Your task to perform on an android device: View the shopping cart on ebay. Add "macbook air" to the cart on ebay Image 0: 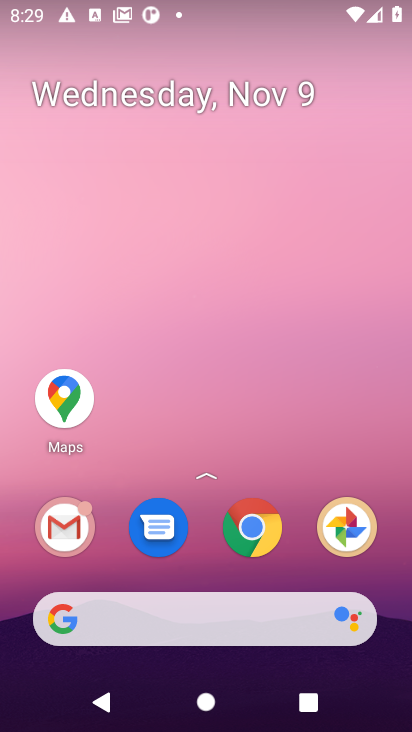
Step 0: click (260, 523)
Your task to perform on an android device: View the shopping cart on ebay. Add "macbook air" to the cart on ebay Image 1: 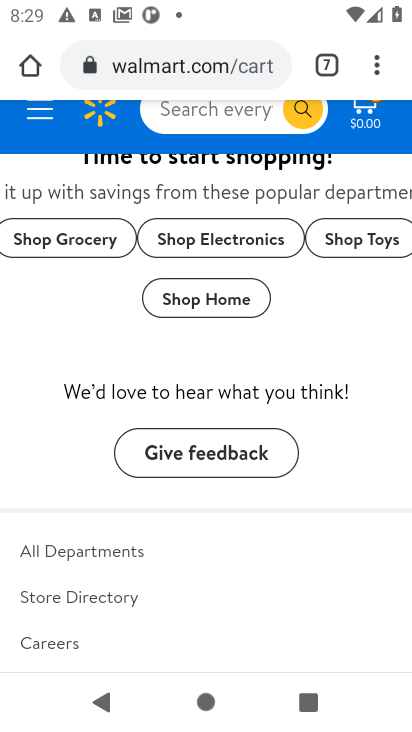
Step 1: click (200, 66)
Your task to perform on an android device: View the shopping cart on ebay. Add "macbook air" to the cart on ebay Image 2: 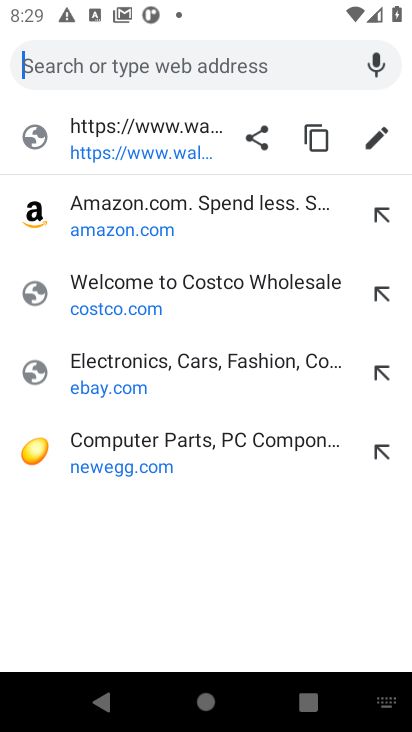
Step 2: click (118, 381)
Your task to perform on an android device: View the shopping cart on ebay. Add "macbook air" to the cart on ebay Image 3: 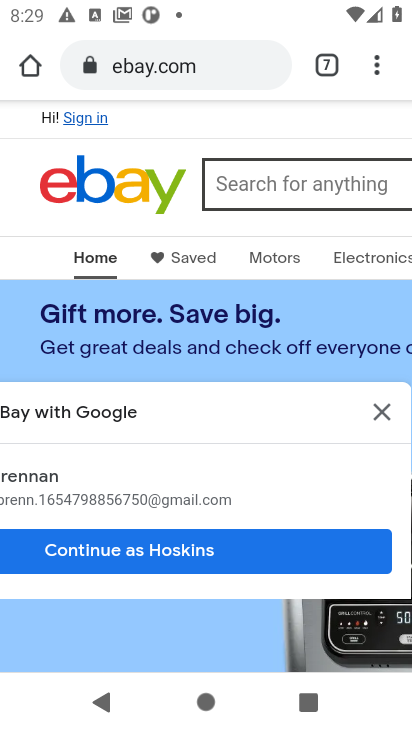
Step 3: drag from (190, 205) to (7, 202)
Your task to perform on an android device: View the shopping cart on ebay. Add "macbook air" to the cart on ebay Image 4: 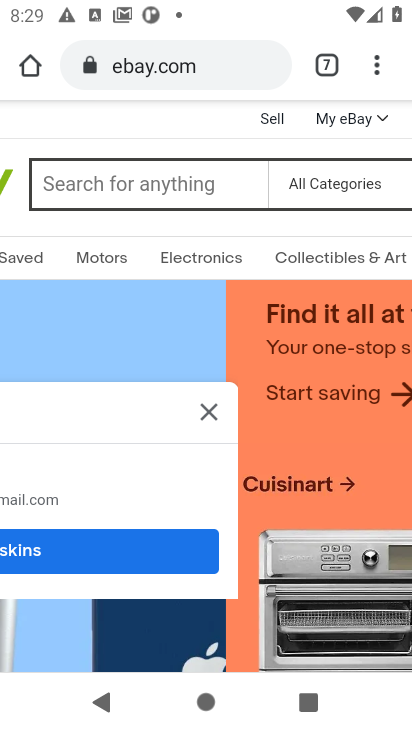
Step 4: drag from (360, 150) to (6, 140)
Your task to perform on an android device: View the shopping cart on ebay. Add "macbook air" to the cart on ebay Image 5: 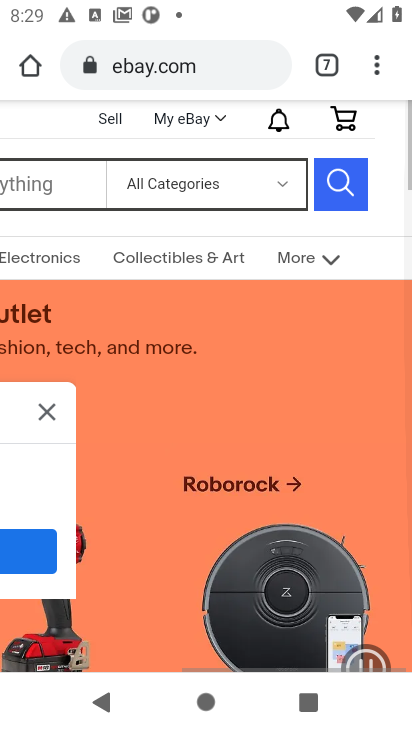
Step 5: click (336, 119)
Your task to perform on an android device: View the shopping cart on ebay. Add "macbook air" to the cart on ebay Image 6: 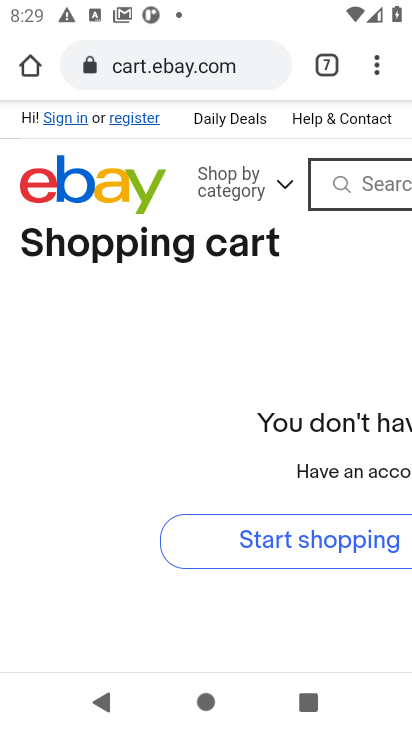
Step 6: click (377, 187)
Your task to perform on an android device: View the shopping cart on ebay. Add "macbook air" to the cart on ebay Image 7: 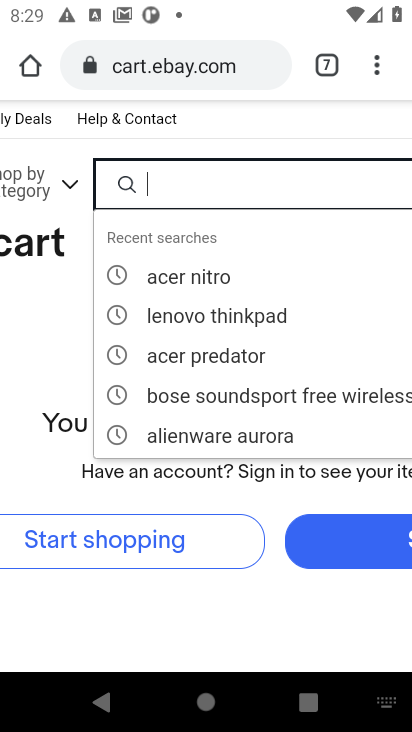
Step 7: type "macbook air"
Your task to perform on an android device: View the shopping cart on ebay. Add "macbook air" to the cart on ebay Image 8: 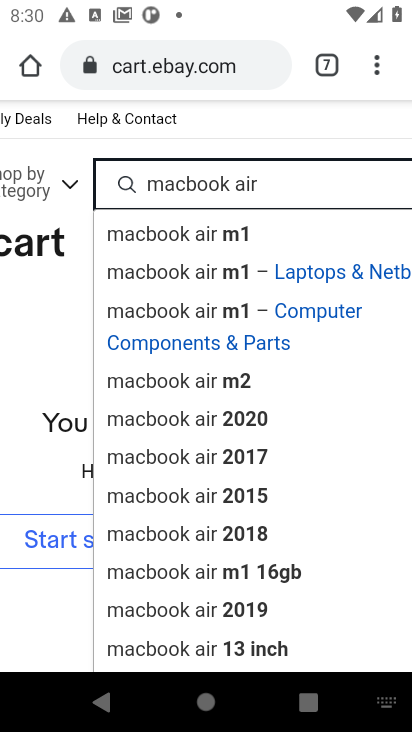
Step 8: drag from (204, 471) to (213, 392)
Your task to perform on an android device: View the shopping cart on ebay. Add "macbook air" to the cart on ebay Image 9: 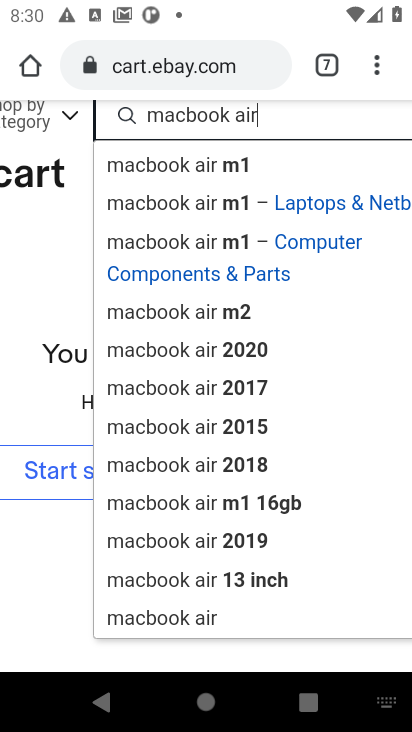
Step 9: click (164, 618)
Your task to perform on an android device: View the shopping cart on ebay. Add "macbook air" to the cart on ebay Image 10: 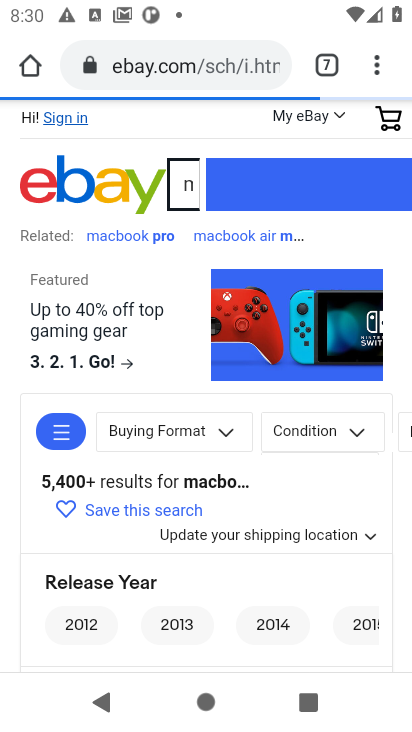
Step 10: drag from (234, 562) to (222, 274)
Your task to perform on an android device: View the shopping cart on ebay. Add "macbook air" to the cart on ebay Image 11: 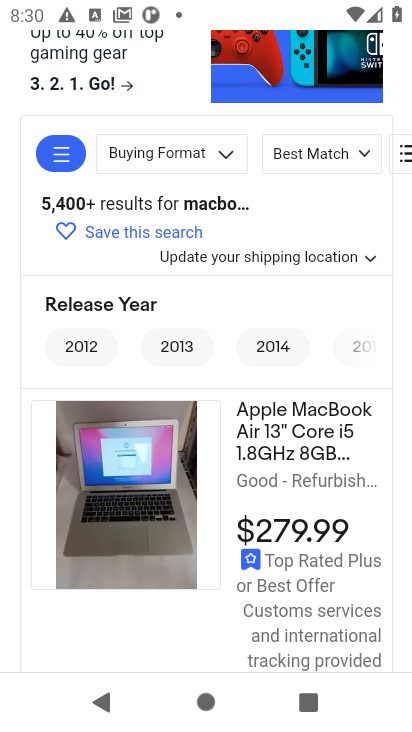
Step 11: click (135, 510)
Your task to perform on an android device: View the shopping cart on ebay. Add "macbook air" to the cart on ebay Image 12: 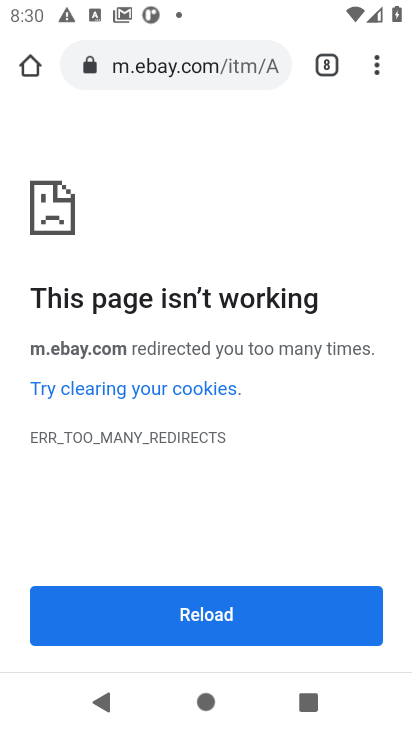
Step 12: task complete